Your task to perform on an android device: Go to notification settings Image 0: 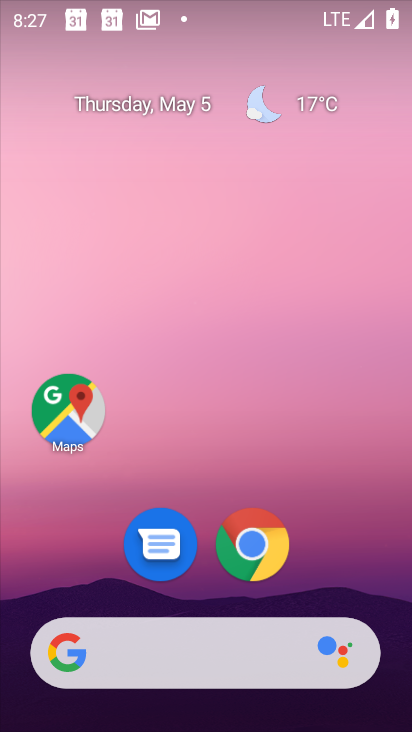
Step 0: drag from (315, 564) to (315, 98)
Your task to perform on an android device: Go to notification settings Image 1: 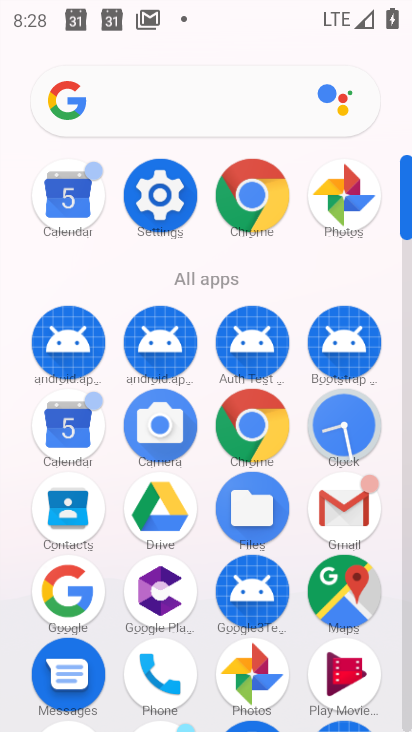
Step 1: click (173, 212)
Your task to perform on an android device: Go to notification settings Image 2: 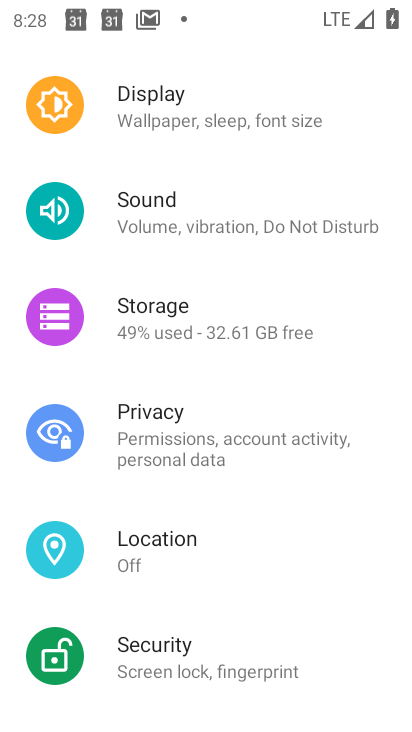
Step 2: drag from (206, 168) to (187, 670)
Your task to perform on an android device: Go to notification settings Image 3: 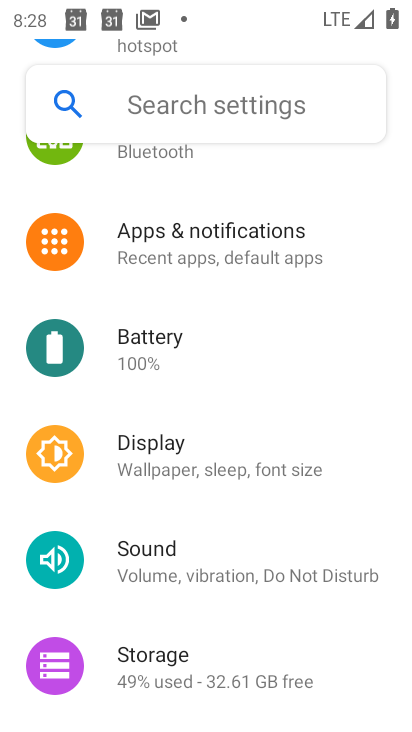
Step 3: drag from (222, 272) to (208, 549)
Your task to perform on an android device: Go to notification settings Image 4: 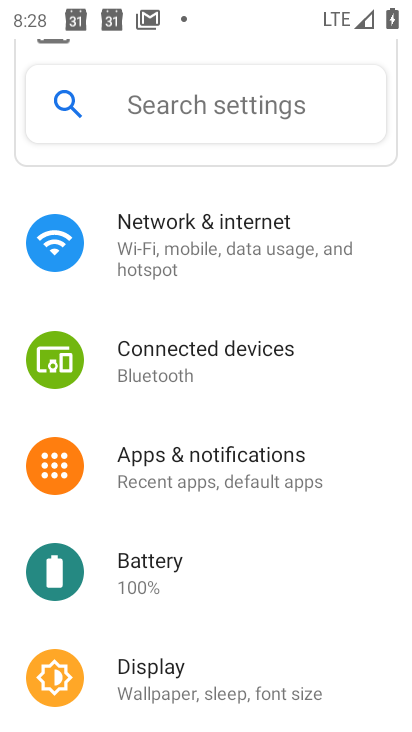
Step 4: click (221, 438)
Your task to perform on an android device: Go to notification settings Image 5: 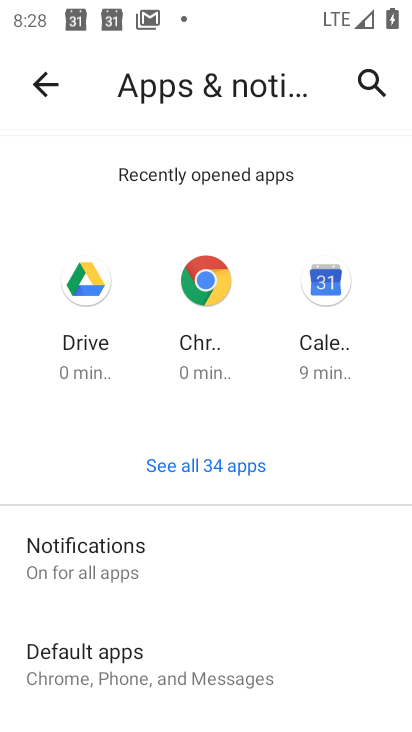
Step 5: task complete